Your task to perform on an android device: check storage Image 0: 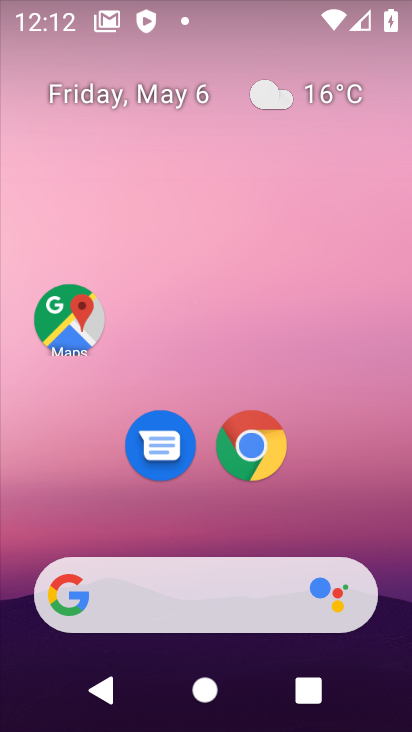
Step 0: click (247, 716)
Your task to perform on an android device: check storage Image 1: 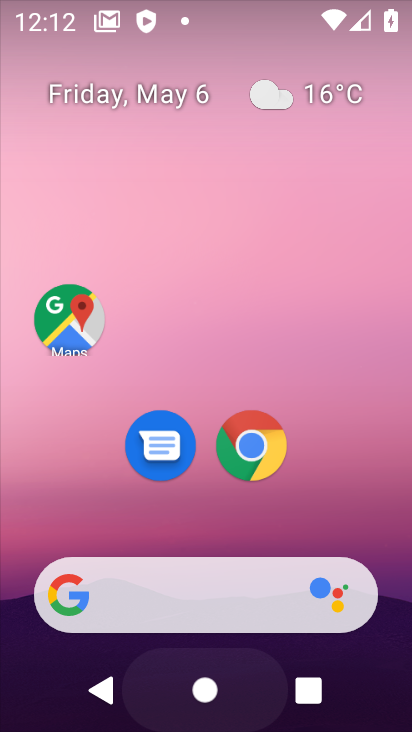
Step 1: drag from (394, 548) to (155, 132)
Your task to perform on an android device: check storage Image 2: 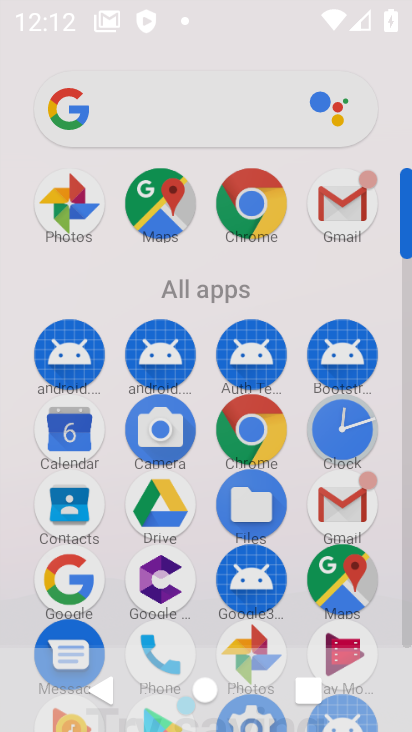
Step 2: drag from (357, 529) to (200, 203)
Your task to perform on an android device: check storage Image 3: 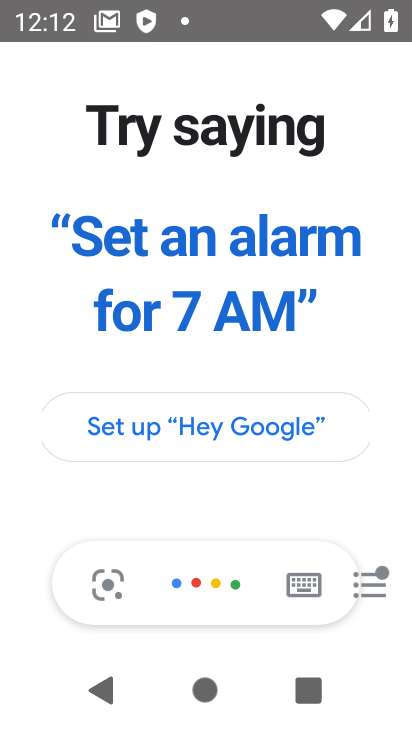
Step 3: press home button
Your task to perform on an android device: check storage Image 4: 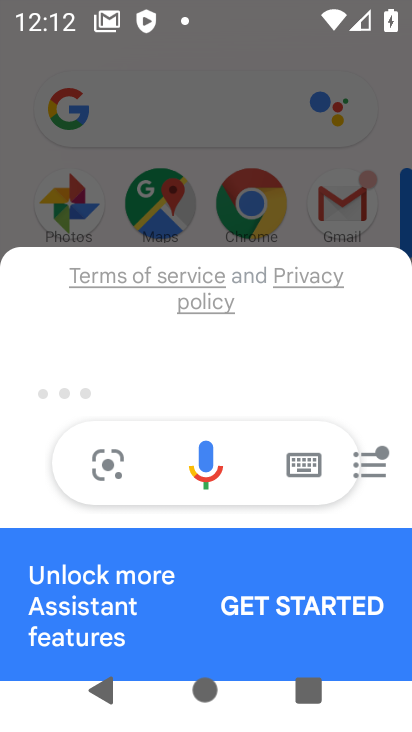
Step 4: press home button
Your task to perform on an android device: check storage Image 5: 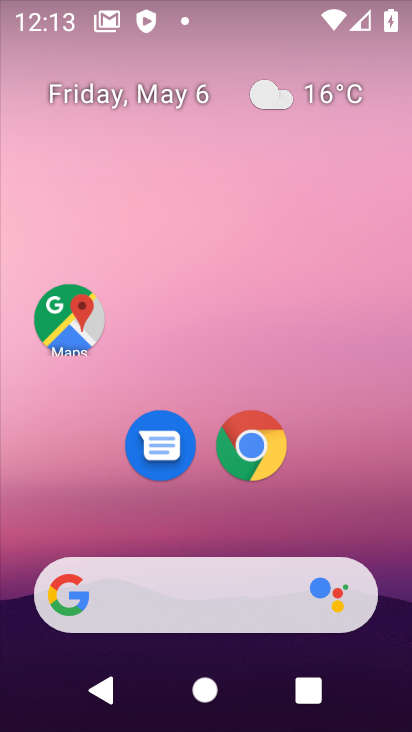
Step 5: drag from (309, 395) to (201, 116)
Your task to perform on an android device: check storage Image 6: 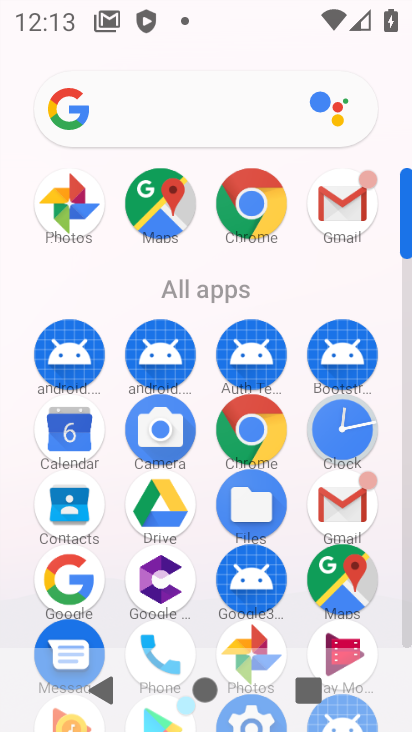
Step 6: drag from (293, 355) to (266, 147)
Your task to perform on an android device: check storage Image 7: 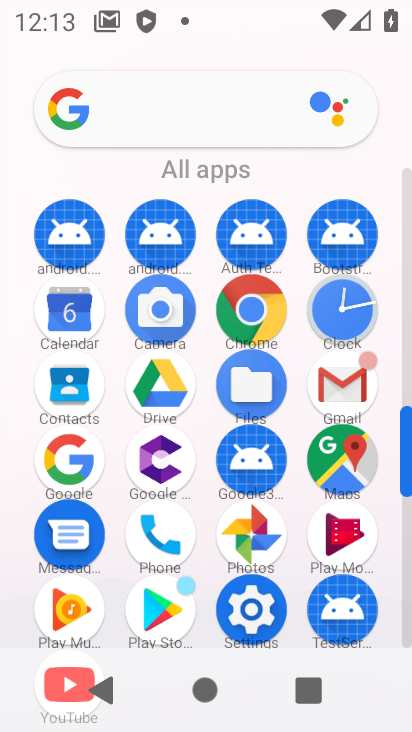
Step 7: drag from (296, 296) to (285, 104)
Your task to perform on an android device: check storage Image 8: 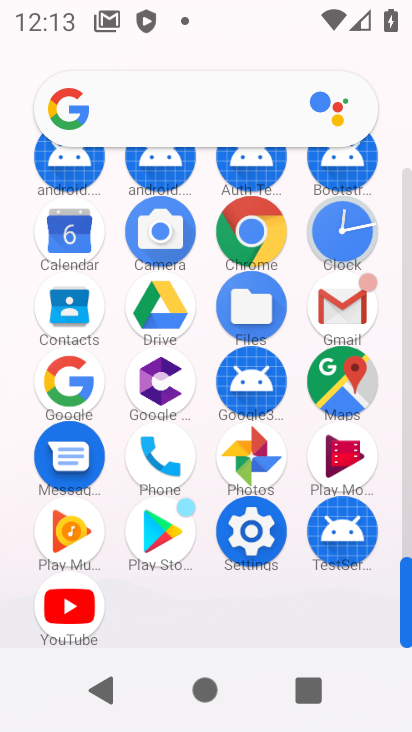
Step 8: drag from (291, 287) to (286, 169)
Your task to perform on an android device: check storage Image 9: 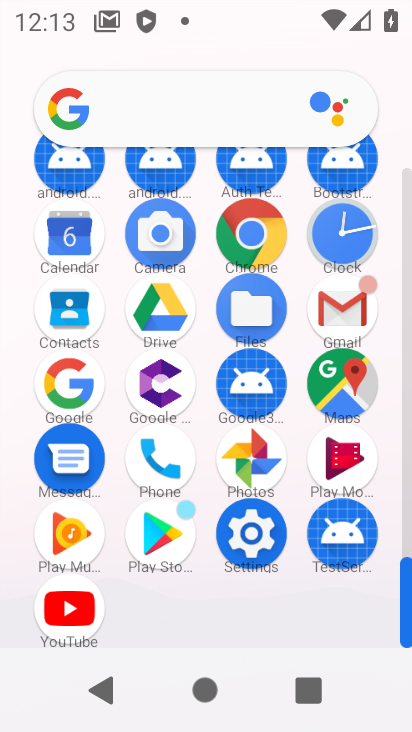
Step 9: click (255, 539)
Your task to perform on an android device: check storage Image 10: 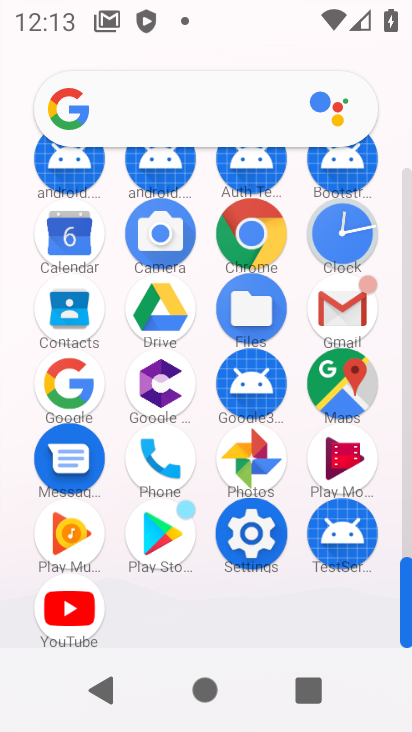
Step 10: click (255, 539)
Your task to perform on an android device: check storage Image 11: 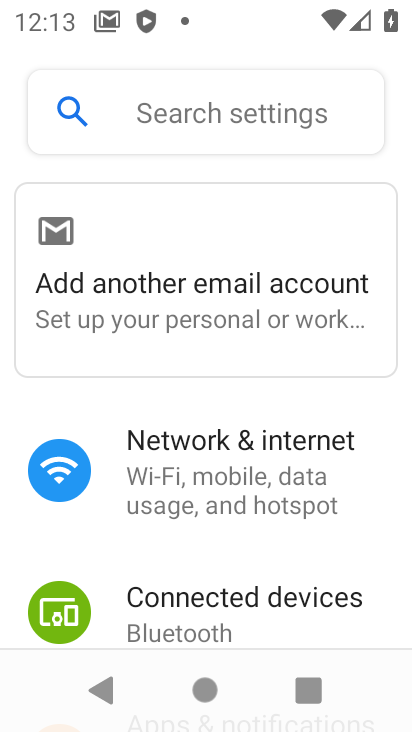
Step 11: drag from (231, 575) to (133, 117)
Your task to perform on an android device: check storage Image 12: 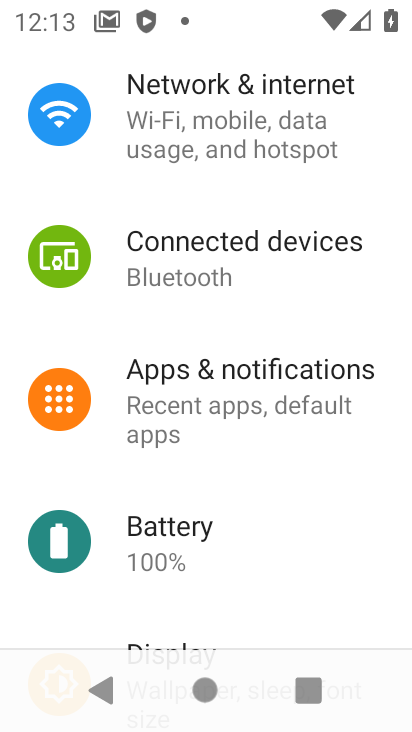
Step 12: drag from (162, 543) to (145, 191)
Your task to perform on an android device: check storage Image 13: 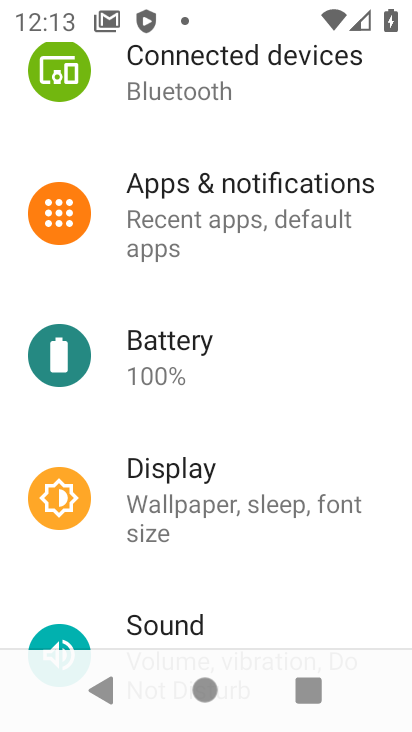
Step 13: drag from (166, 554) to (98, 324)
Your task to perform on an android device: check storage Image 14: 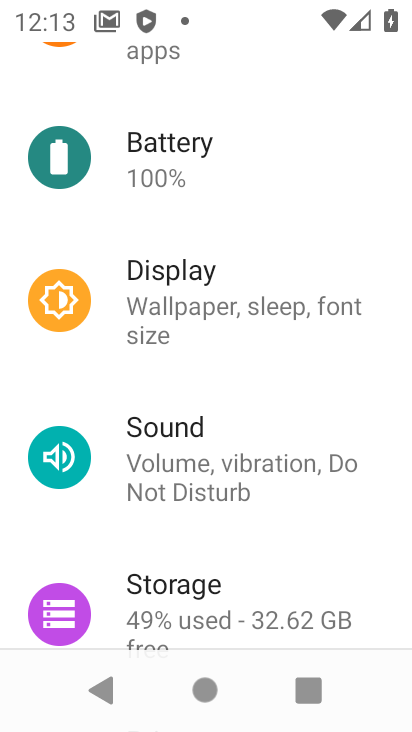
Step 14: click (186, 597)
Your task to perform on an android device: check storage Image 15: 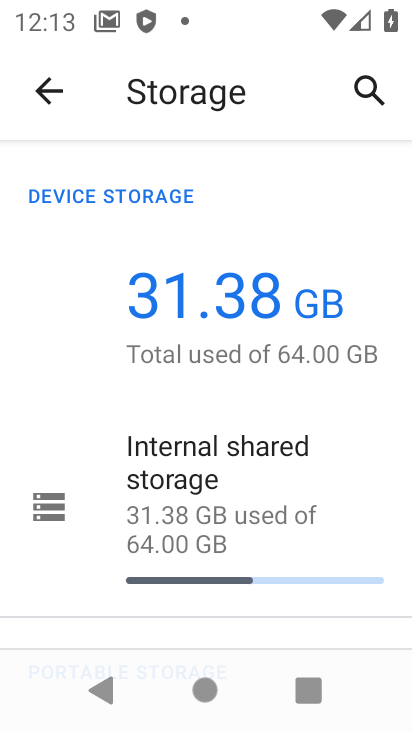
Step 15: task complete